Your task to perform on an android device: Open the calendar and show me this week's events? Image 0: 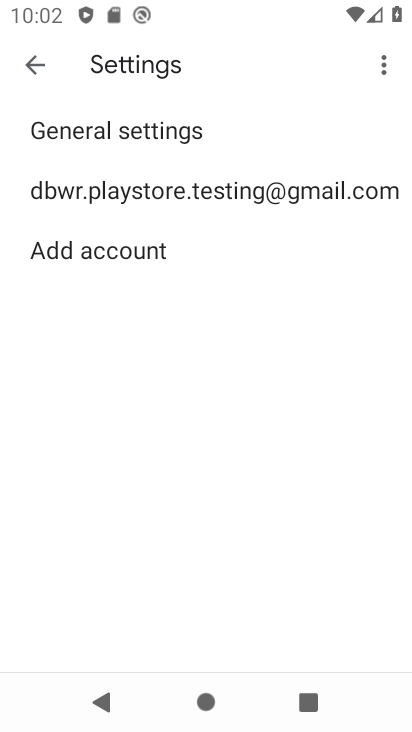
Step 0: press home button
Your task to perform on an android device: Open the calendar and show me this week's events? Image 1: 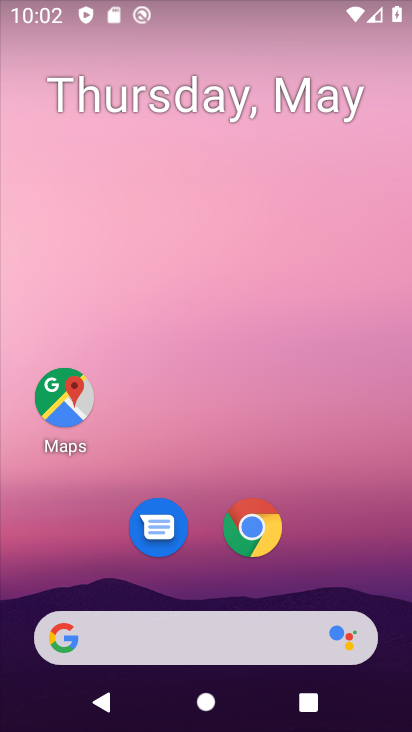
Step 1: drag from (295, 568) to (295, 103)
Your task to perform on an android device: Open the calendar and show me this week's events? Image 2: 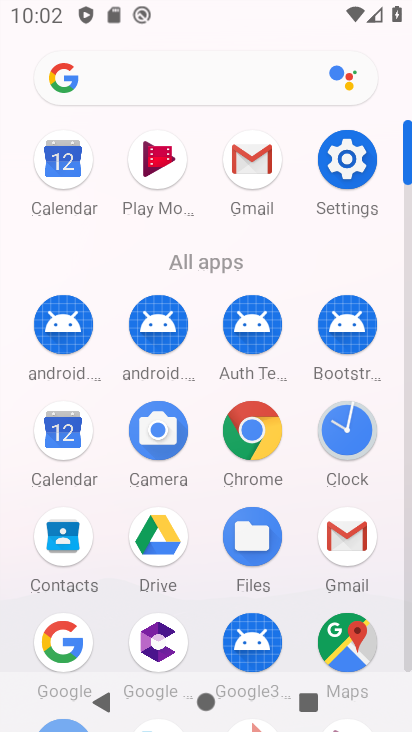
Step 2: click (53, 458)
Your task to perform on an android device: Open the calendar and show me this week's events? Image 3: 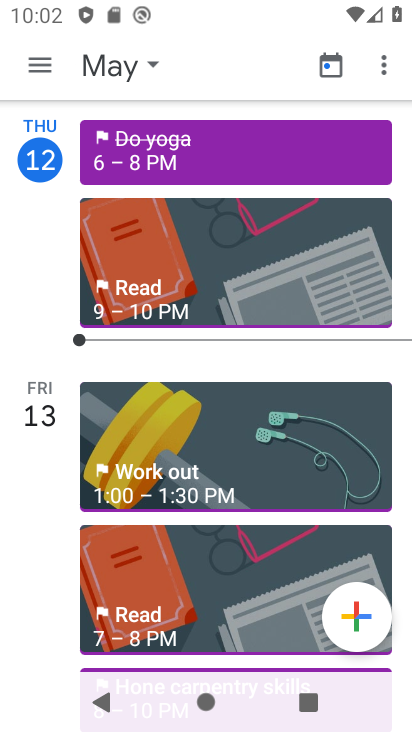
Step 3: click (38, 74)
Your task to perform on an android device: Open the calendar and show me this week's events? Image 4: 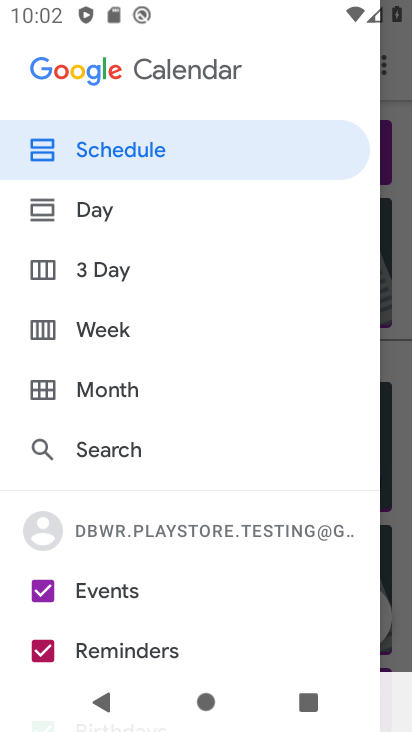
Step 4: click (112, 322)
Your task to perform on an android device: Open the calendar and show me this week's events? Image 5: 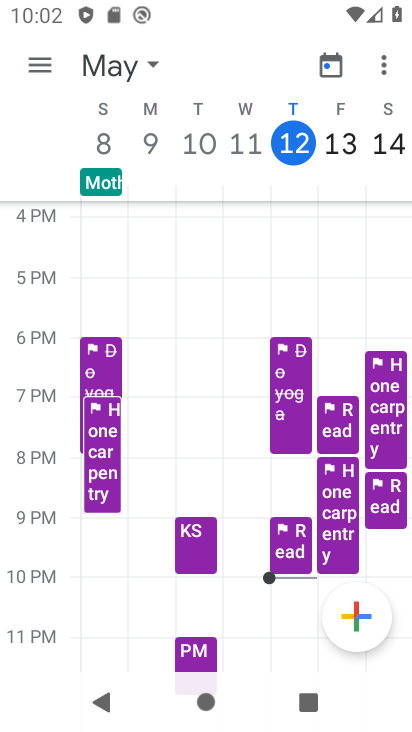
Step 5: task complete